Your task to perform on an android device: refresh tabs in the chrome app Image 0: 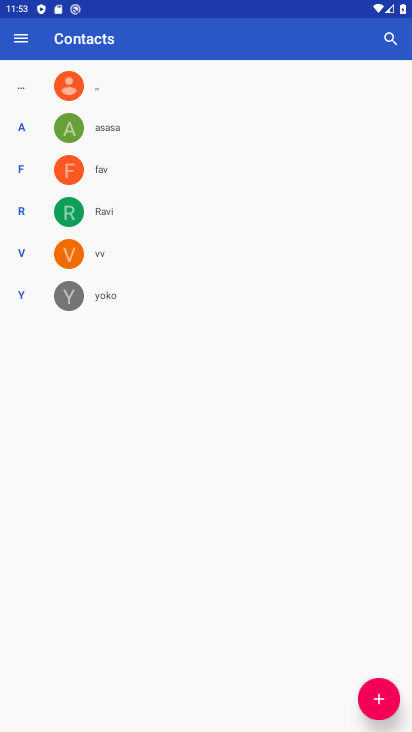
Step 0: press home button
Your task to perform on an android device: refresh tabs in the chrome app Image 1: 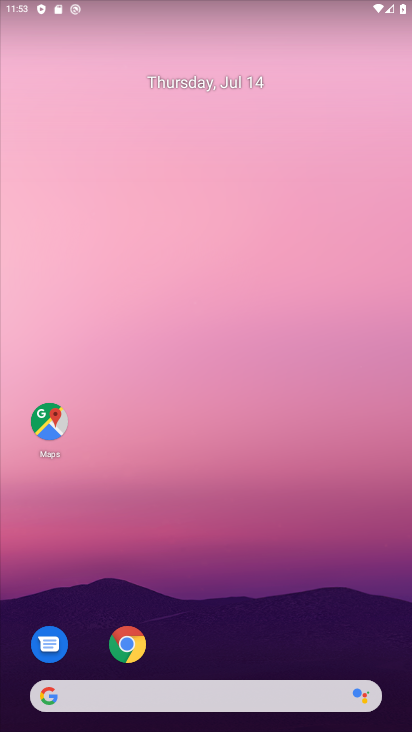
Step 1: click (130, 644)
Your task to perform on an android device: refresh tabs in the chrome app Image 2: 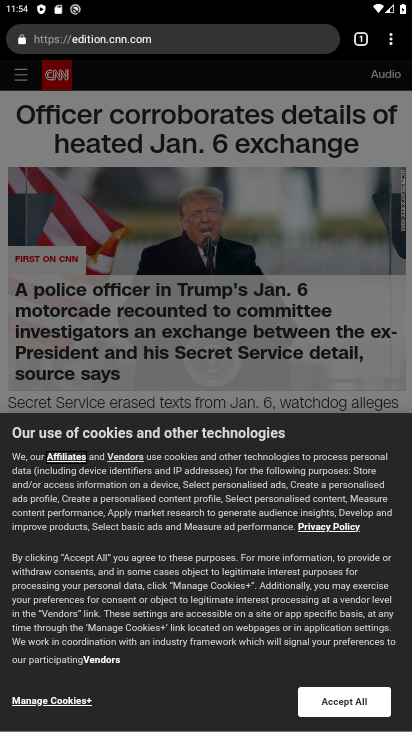
Step 2: click (391, 43)
Your task to perform on an android device: refresh tabs in the chrome app Image 3: 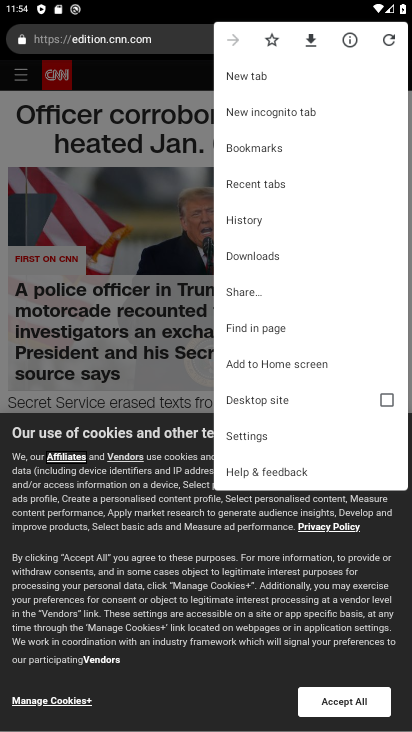
Step 3: click (388, 36)
Your task to perform on an android device: refresh tabs in the chrome app Image 4: 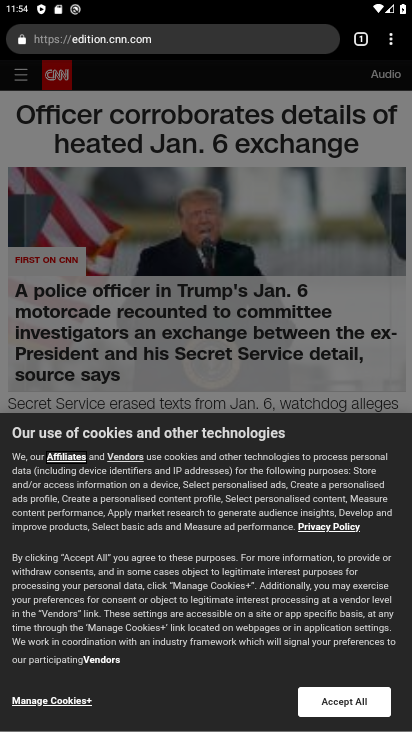
Step 4: task complete